Your task to perform on an android device: delete browsing data in the chrome app Image 0: 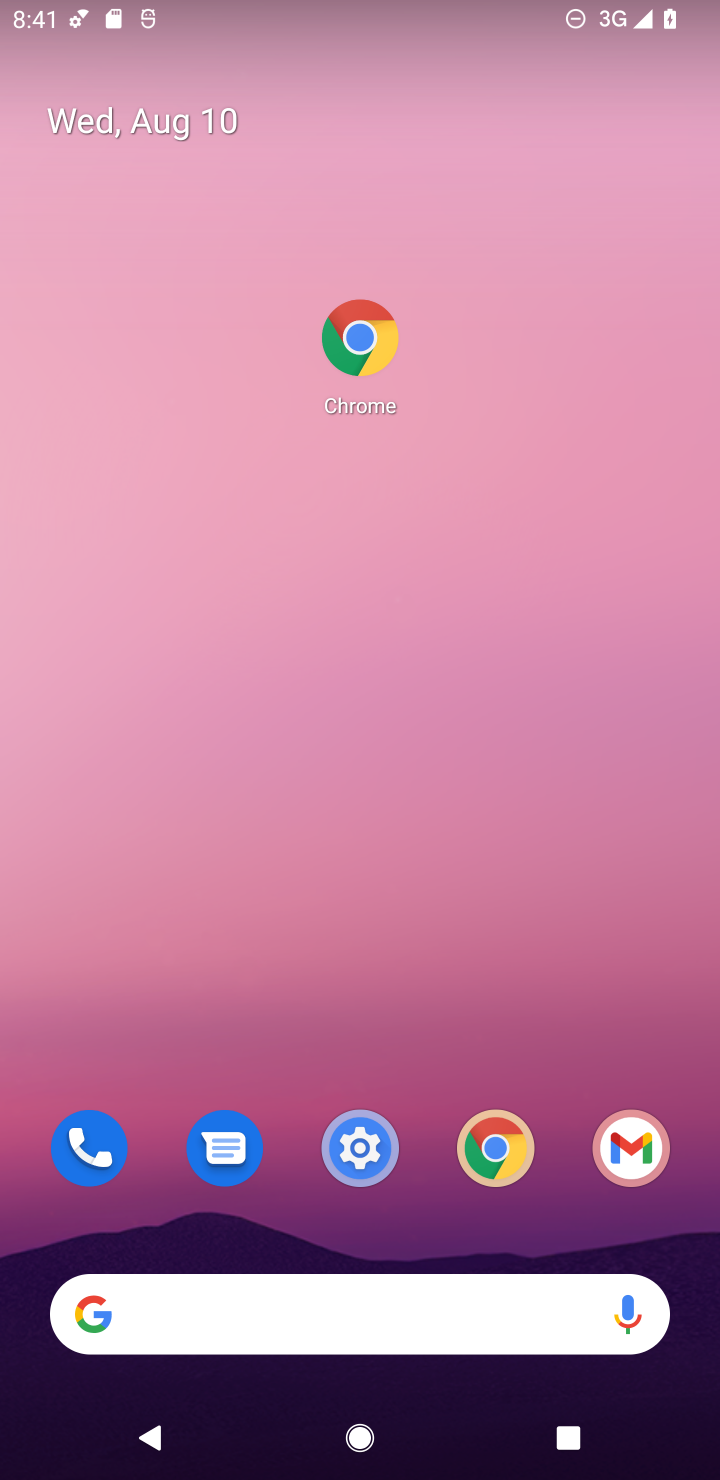
Step 0: click (347, 329)
Your task to perform on an android device: delete browsing data in the chrome app Image 1: 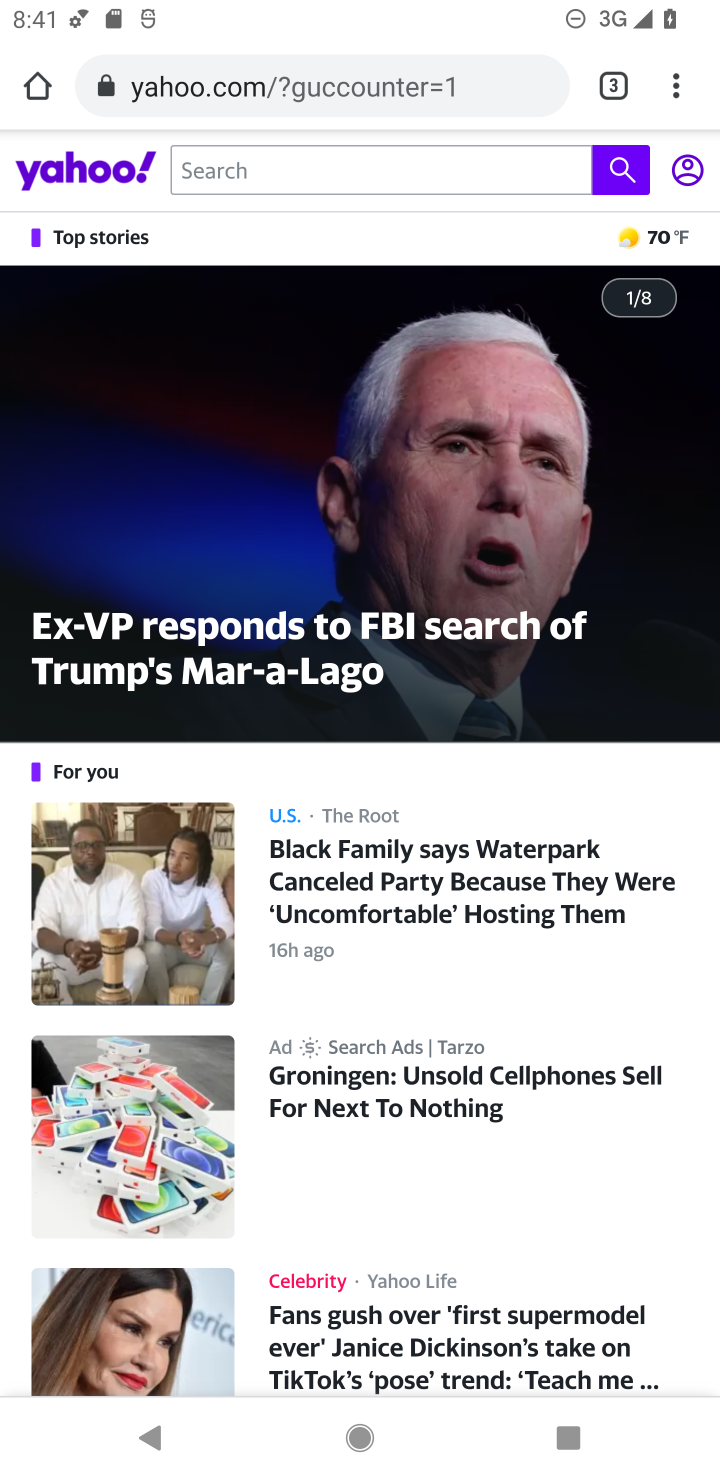
Step 1: click (677, 86)
Your task to perform on an android device: delete browsing data in the chrome app Image 2: 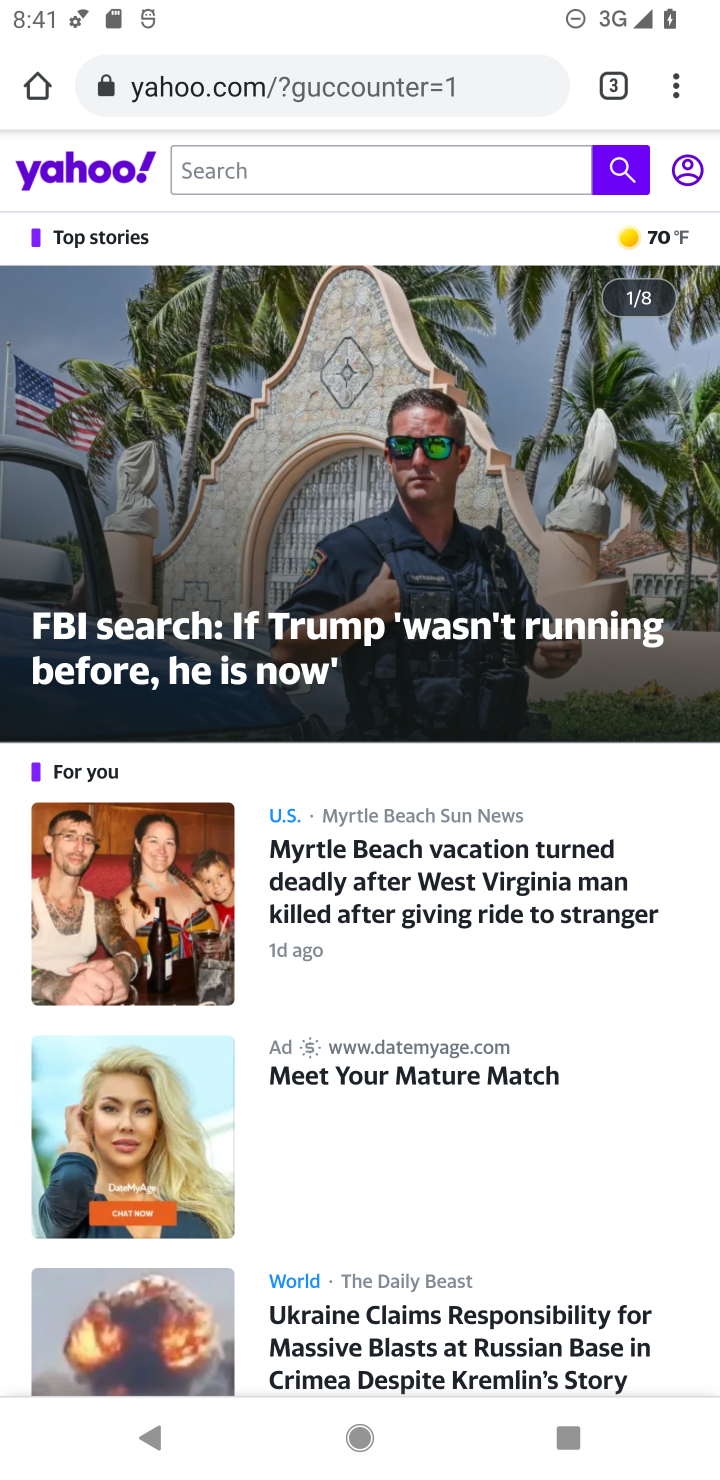
Step 2: click (677, 86)
Your task to perform on an android device: delete browsing data in the chrome app Image 3: 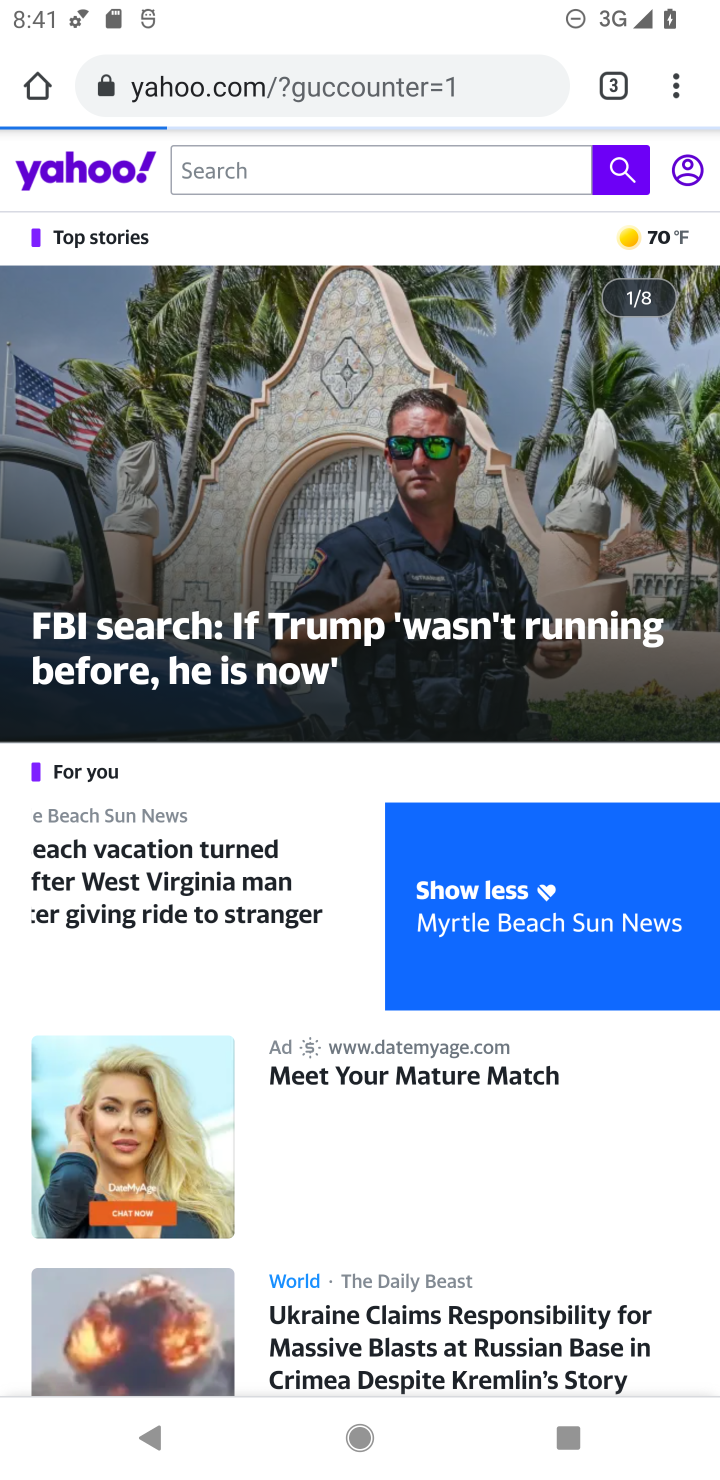
Step 3: click (677, 86)
Your task to perform on an android device: delete browsing data in the chrome app Image 4: 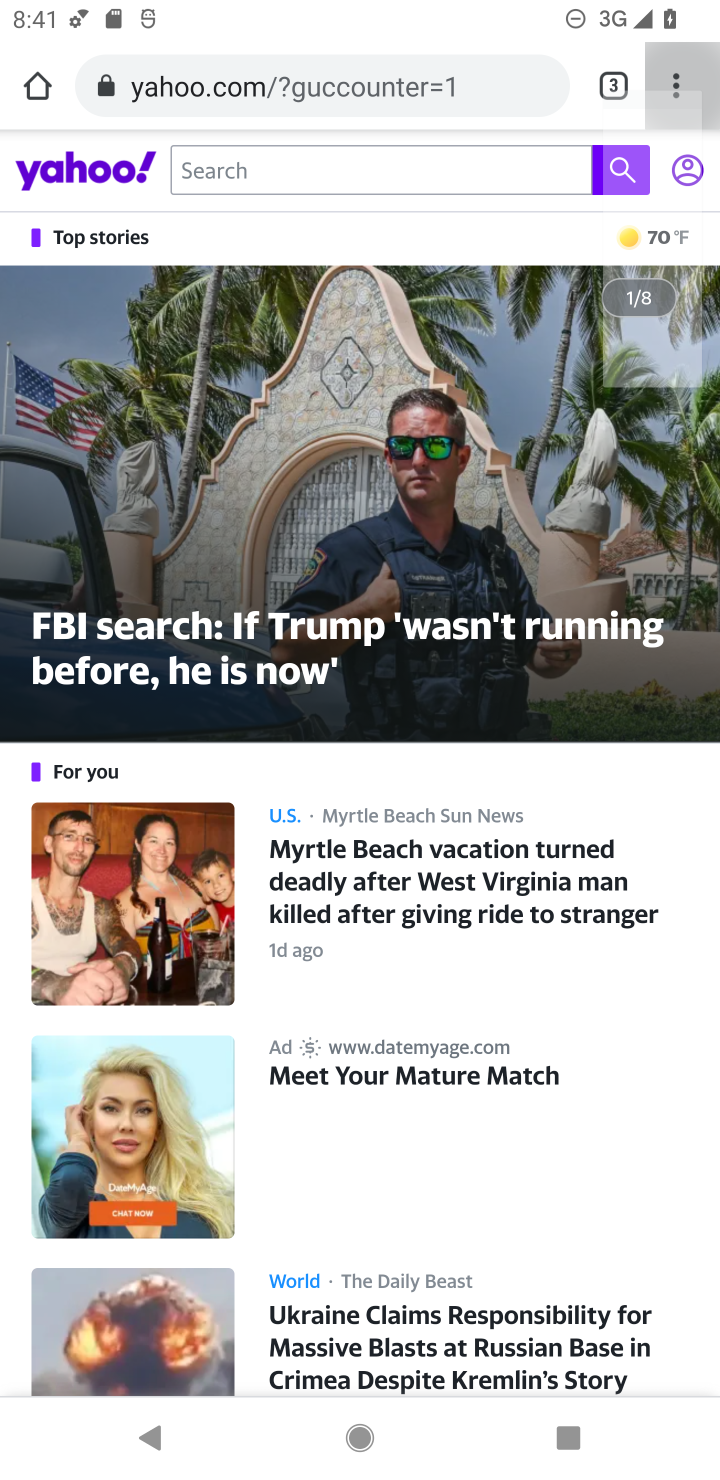
Step 4: click (677, 86)
Your task to perform on an android device: delete browsing data in the chrome app Image 5: 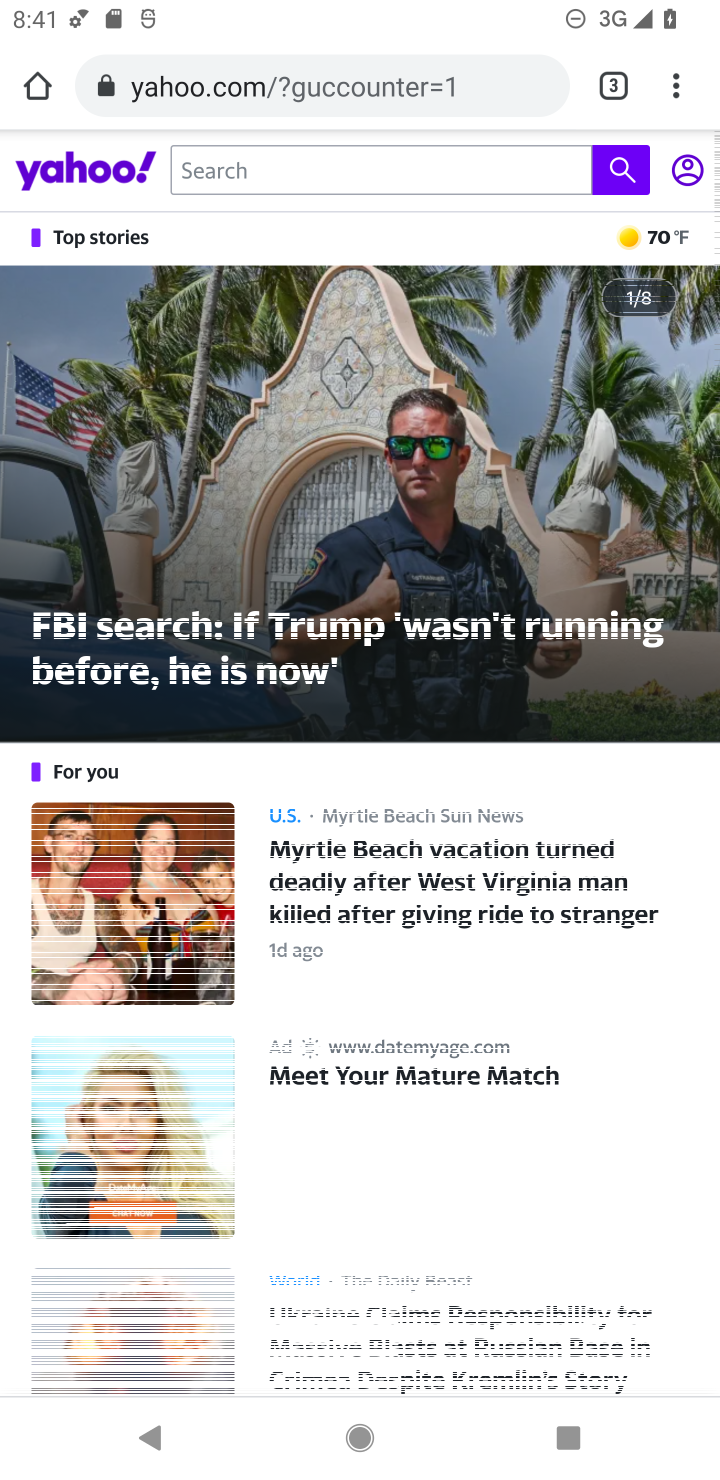
Step 5: click (668, 78)
Your task to perform on an android device: delete browsing data in the chrome app Image 6: 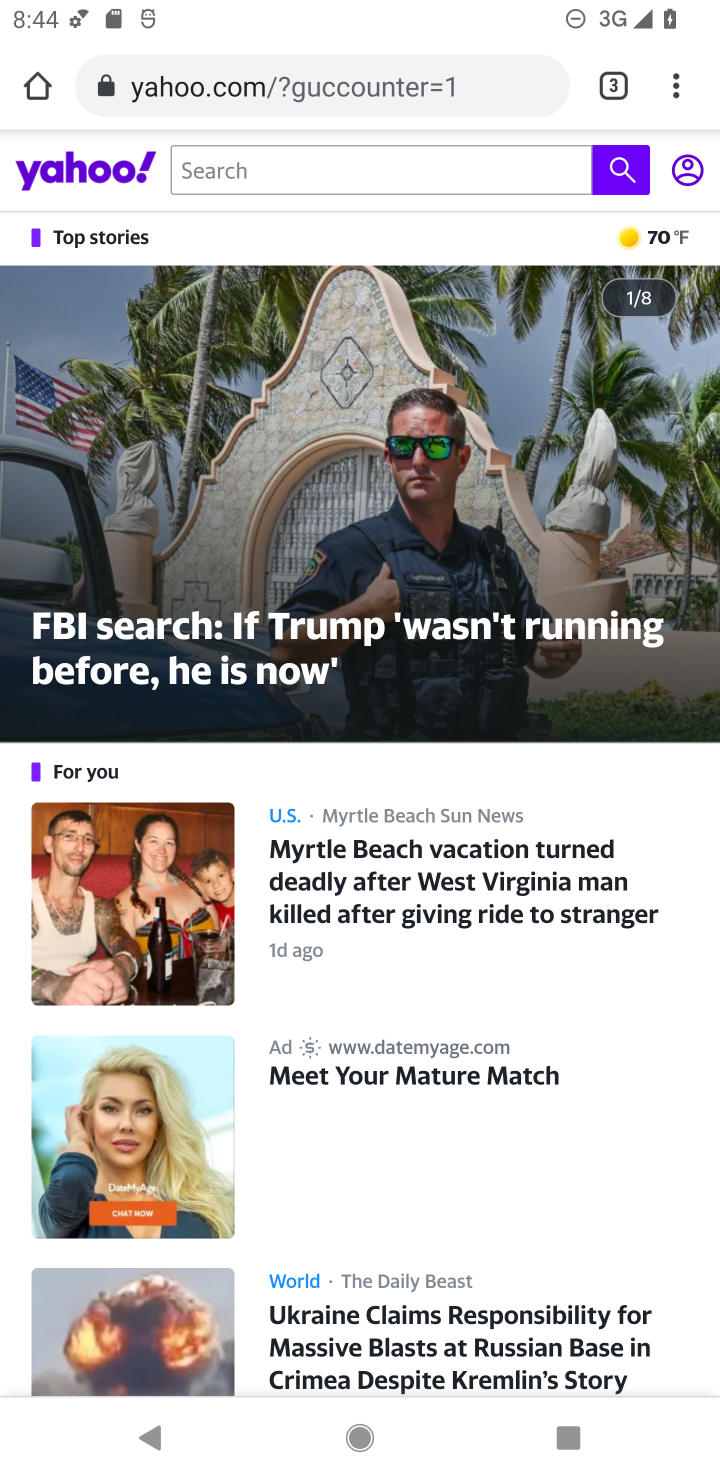
Step 6: task complete